Your task to perform on an android device: change the clock display to analog Image 0: 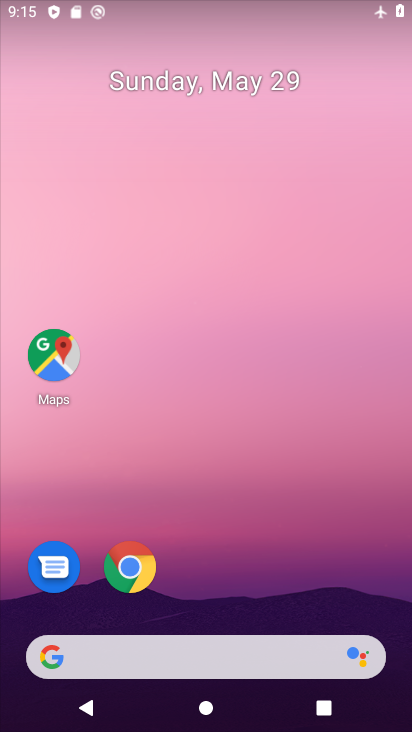
Step 0: drag from (393, 606) to (336, 49)
Your task to perform on an android device: change the clock display to analog Image 1: 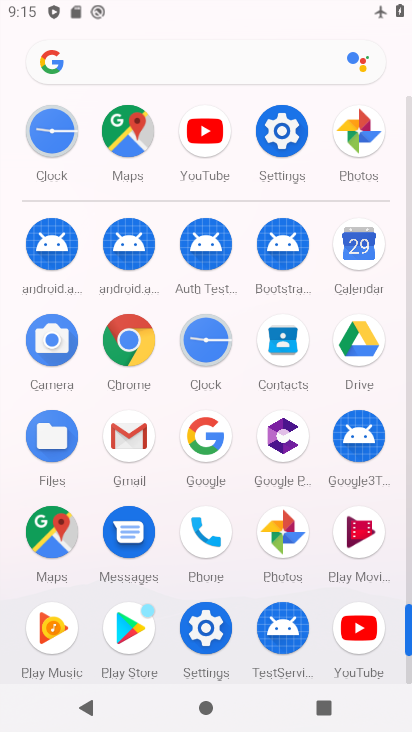
Step 1: click (408, 572)
Your task to perform on an android device: change the clock display to analog Image 2: 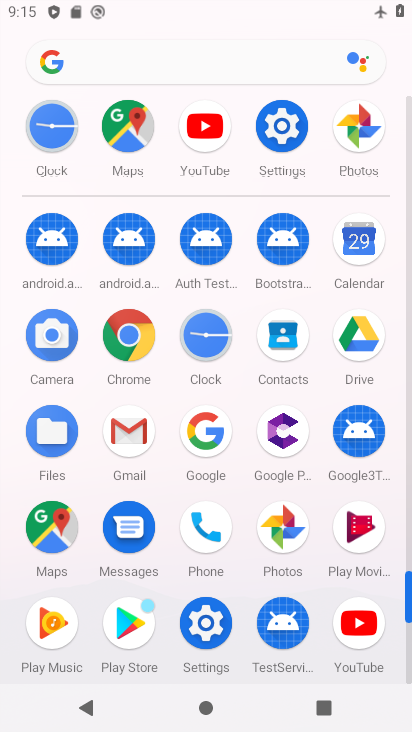
Step 2: click (206, 335)
Your task to perform on an android device: change the clock display to analog Image 3: 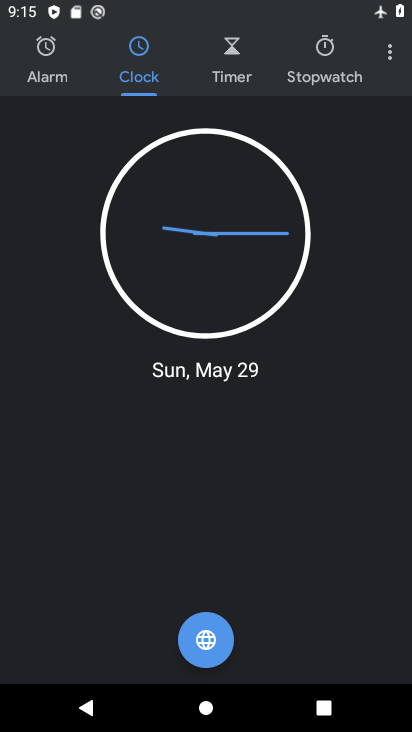
Step 3: click (389, 57)
Your task to perform on an android device: change the clock display to analog Image 4: 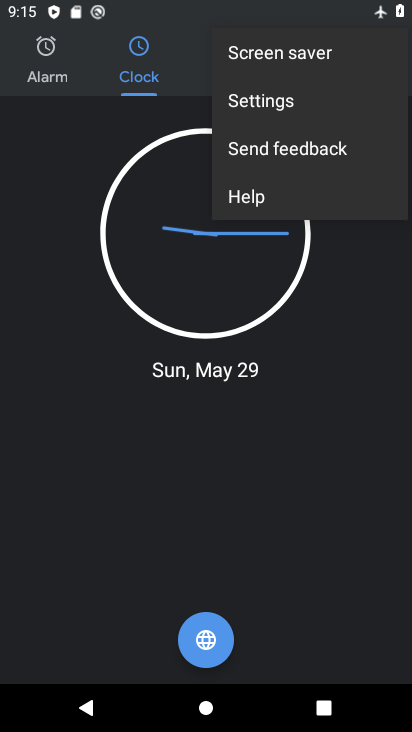
Step 4: click (262, 92)
Your task to perform on an android device: change the clock display to analog Image 5: 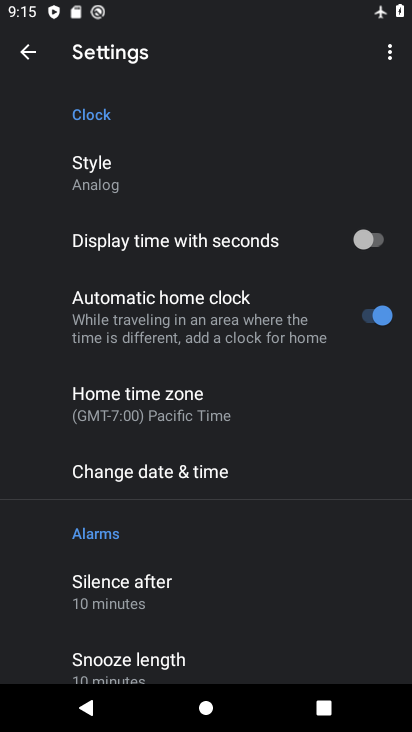
Step 5: task complete